Your task to perform on an android device: turn off location history Image 0: 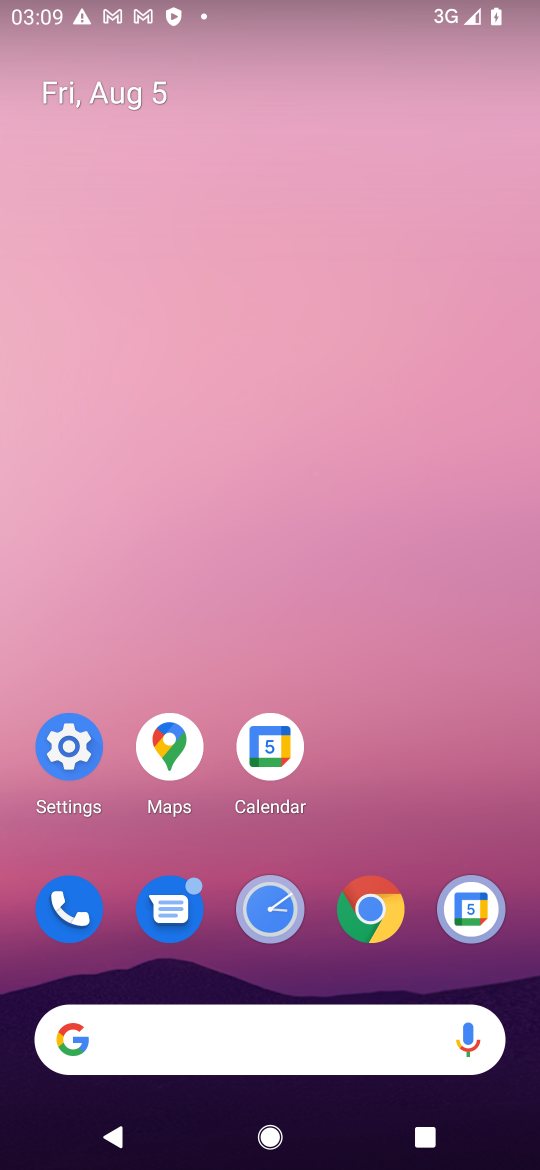
Step 0: click (68, 745)
Your task to perform on an android device: turn off location history Image 1: 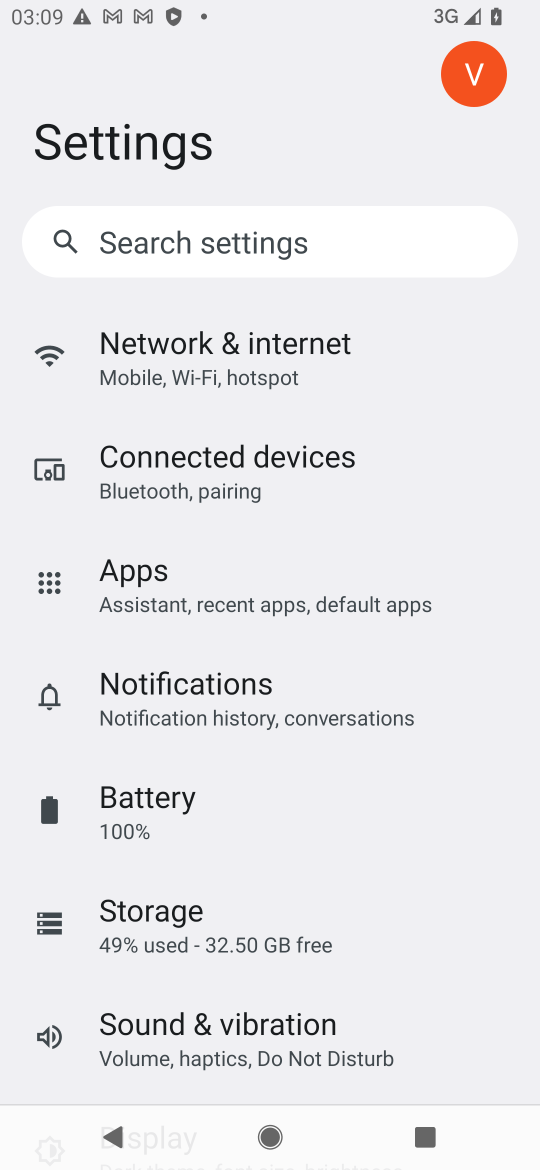
Step 1: drag from (402, 972) to (402, 410)
Your task to perform on an android device: turn off location history Image 2: 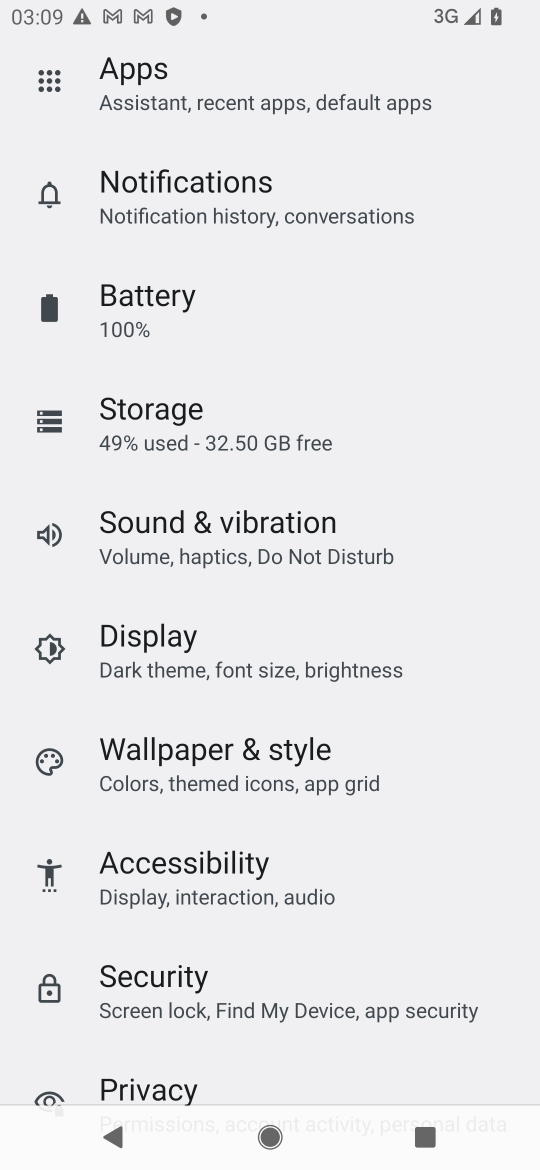
Step 2: drag from (412, 945) to (407, 186)
Your task to perform on an android device: turn off location history Image 3: 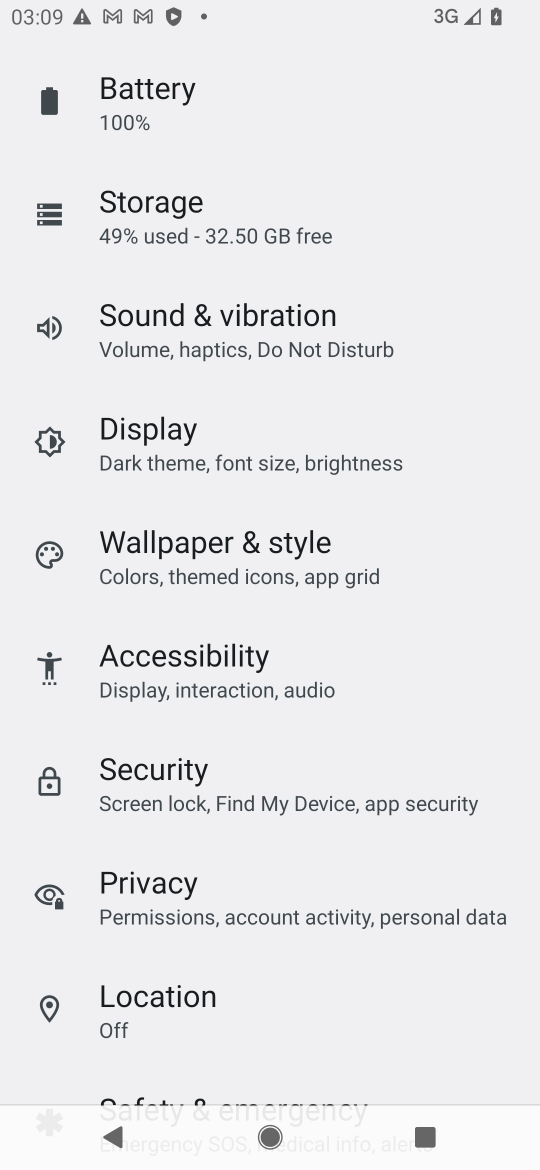
Step 3: click (143, 999)
Your task to perform on an android device: turn off location history Image 4: 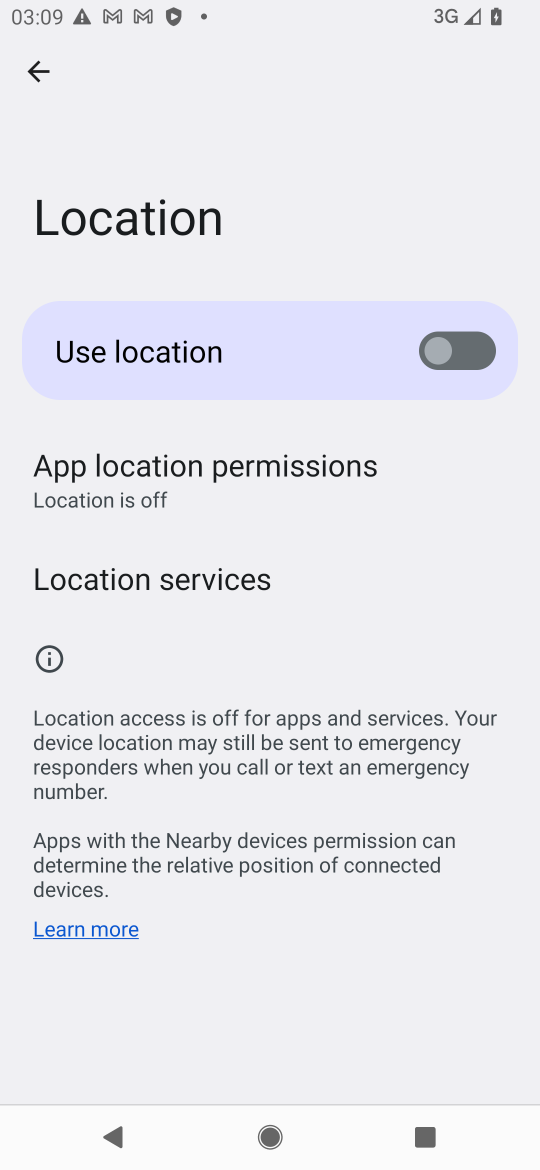
Step 4: click (119, 570)
Your task to perform on an android device: turn off location history Image 5: 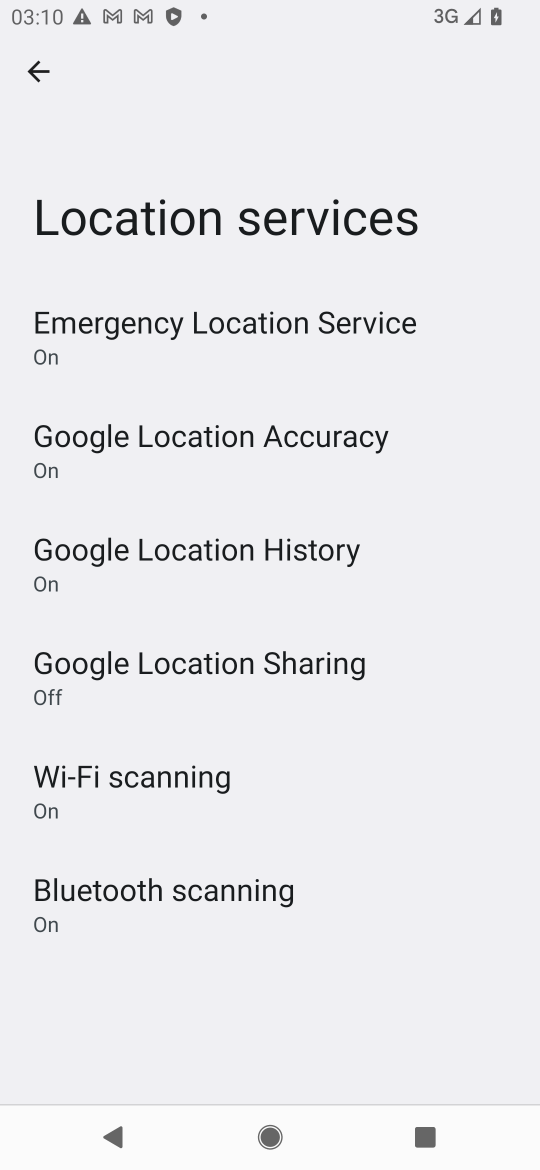
Step 5: click (207, 542)
Your task to perform on an android device: turn off location history Image 6: 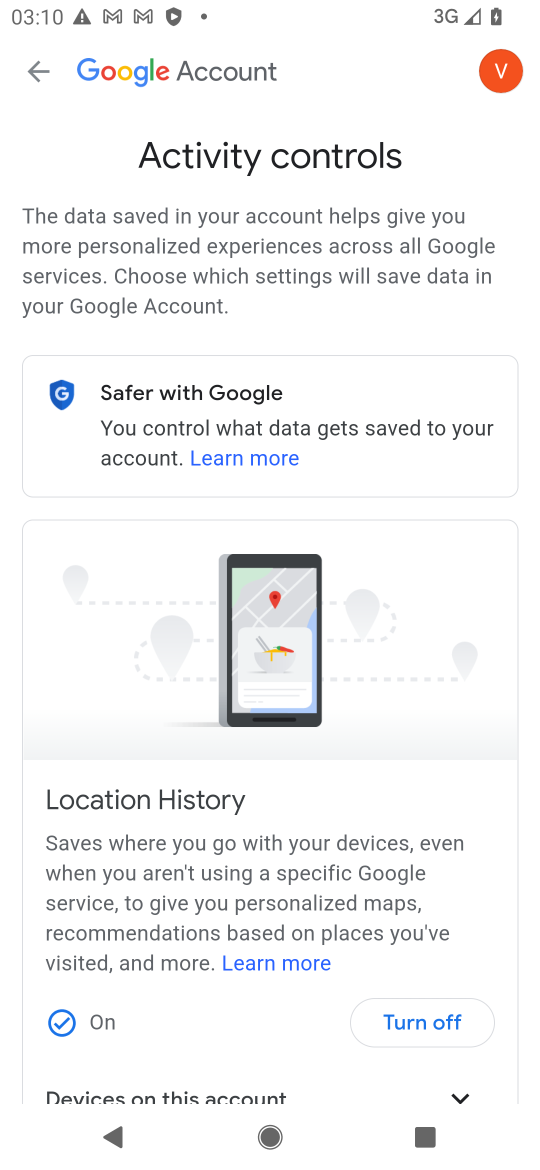
Step 6: click (426, 1021)
Your task to perform on an android device: turn off location history Image 7: 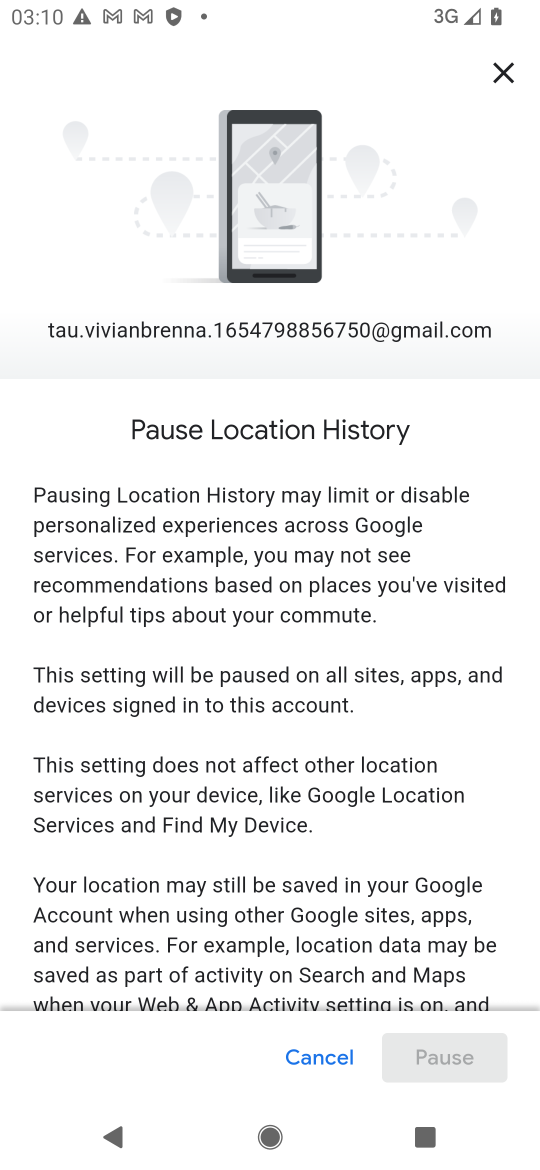
Step 7: drag from (399, 912) to (399, 286)
Your task to perform on an android device: turn off location history Image 8: 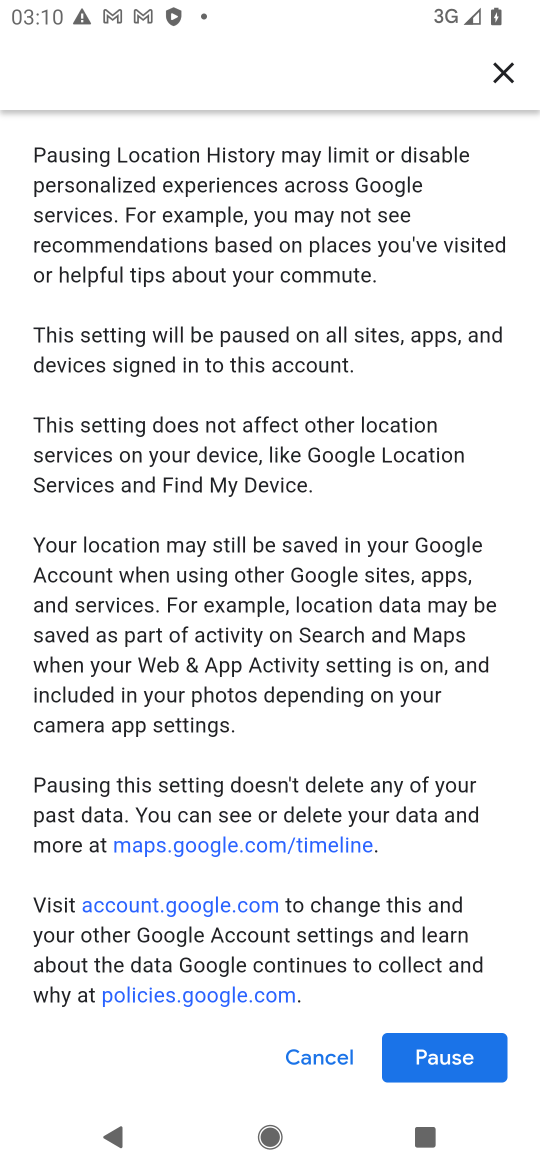
Step 8: click (438, 1057)
Your task to perform on an android device: turn off location history Image 9: 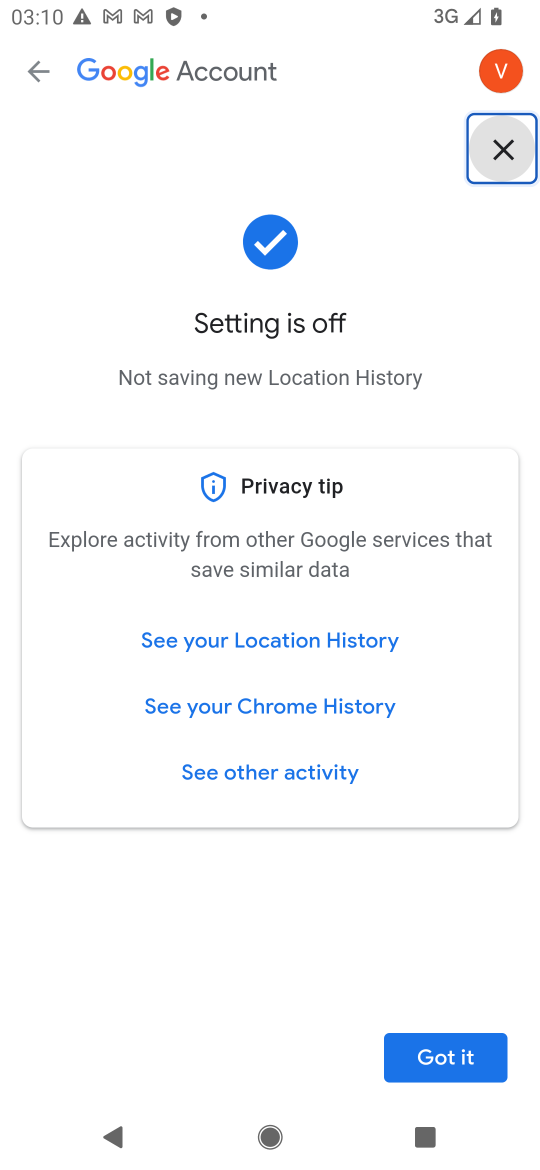
Step 9: click (438, 1057)
Your task to perform on an android device: turn off location history Image 10: 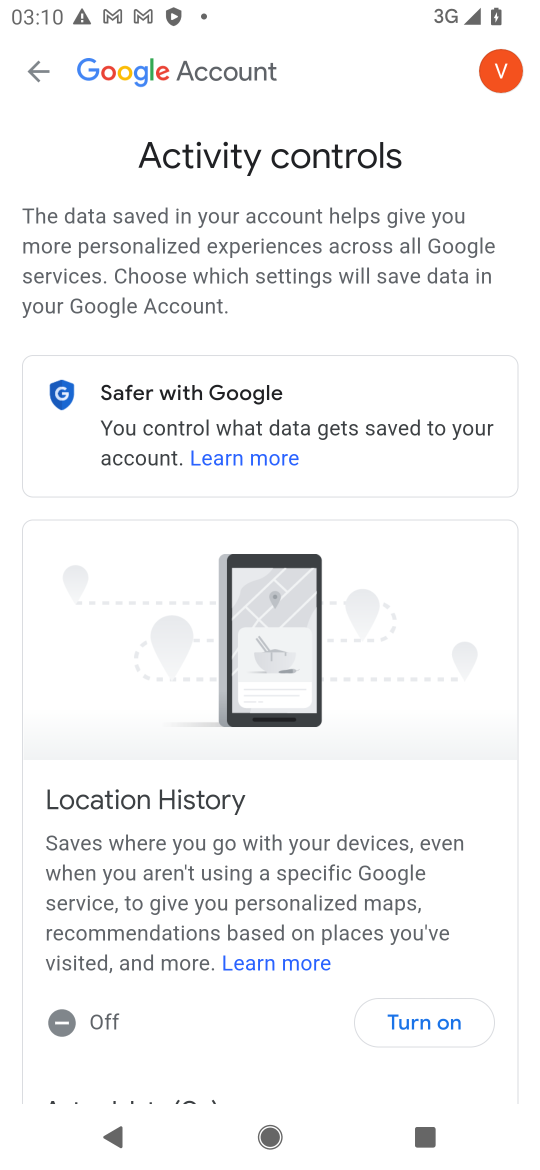
Step 10: task complete